Your task to perform on an android device: set default search engine in the chrome app Image 0: 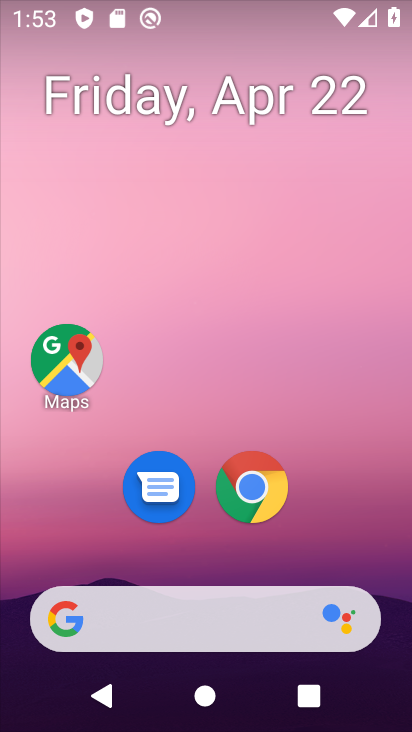
Step 0: drag from (201, 597) to (285, 159)
Your task to perform on an android device: set default search engine in the chrome app Image 1: 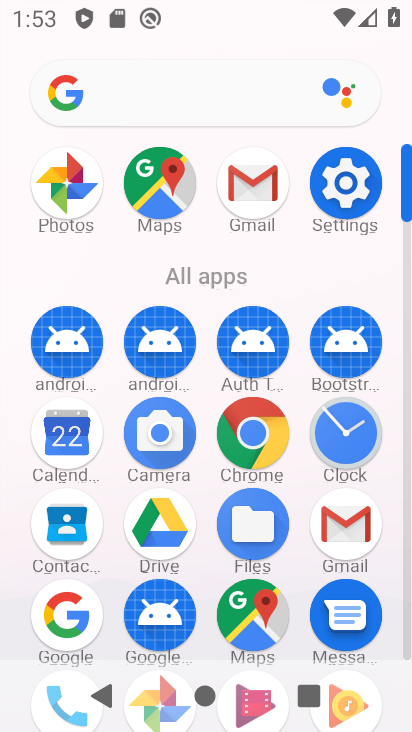
Step 1: click (238, 448)
Your task to perform on an android device: set default search engine in the chrome app Image 2: 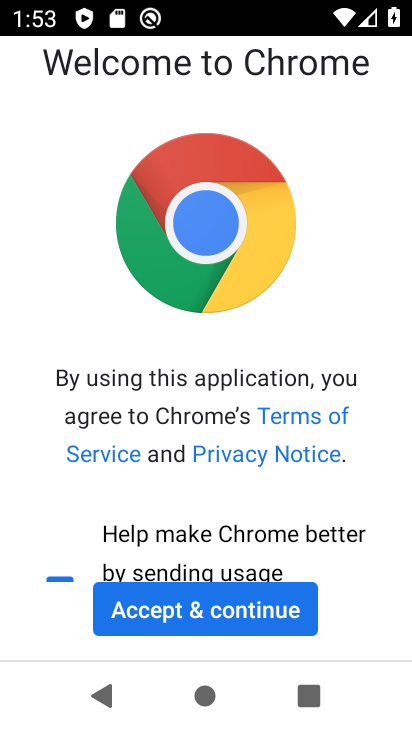
Step 2: click (204, 596)
Your task to perform on an android device: set default search engine in the chrome app Image 3: 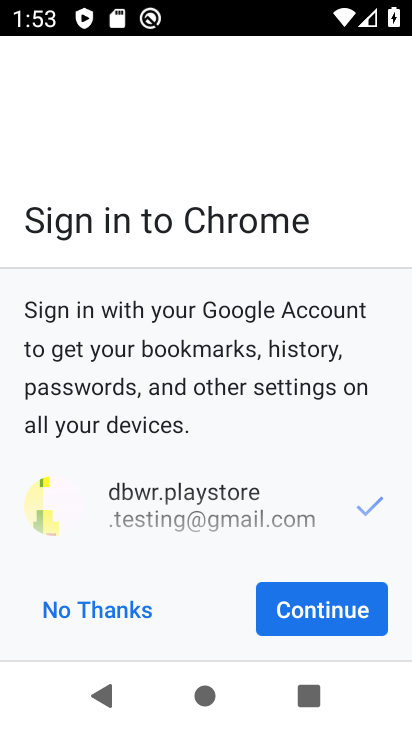
Step 3: click (299, 614)
Your task to perform on an android device: set default search engine in the chrome app Image 4: 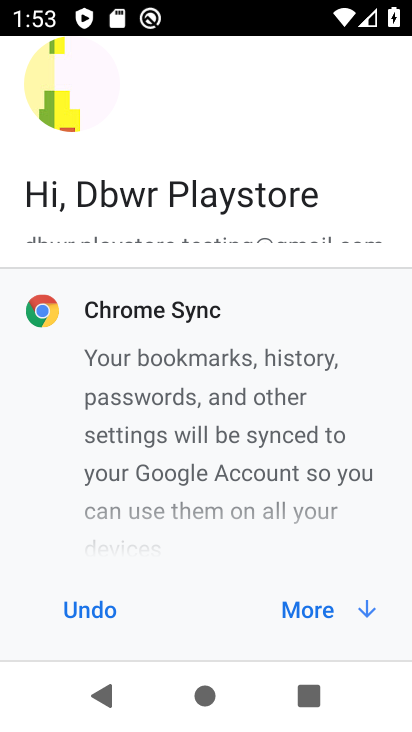
Step 4: click (299, 614)
Your task to perform on an android device: set default search engine in the chrome app Image 5: 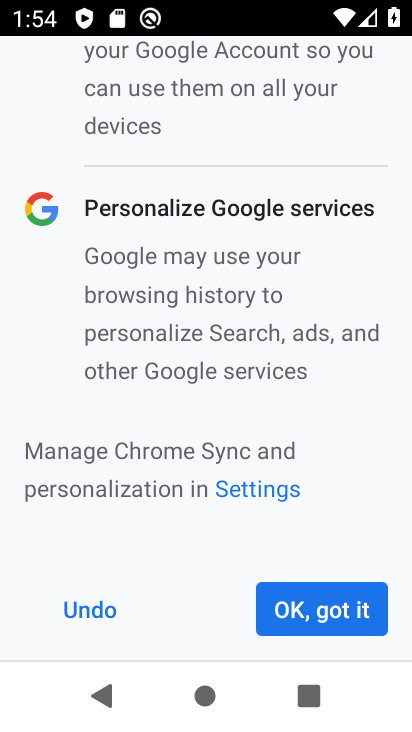
Step 5: click (303, 612)
Your task to perform on an android device: set default search engine in the chrome app Image 6: 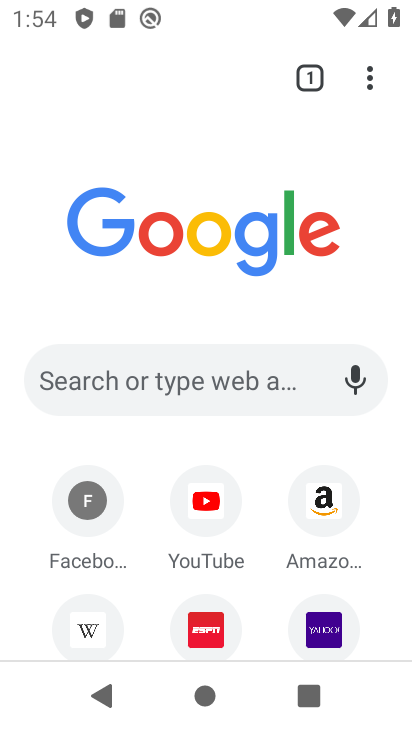
Step 6: drag from (367, 87) to (103, 554)
Your task to perform on an android device: set default search engine in the chrome app Image 7: 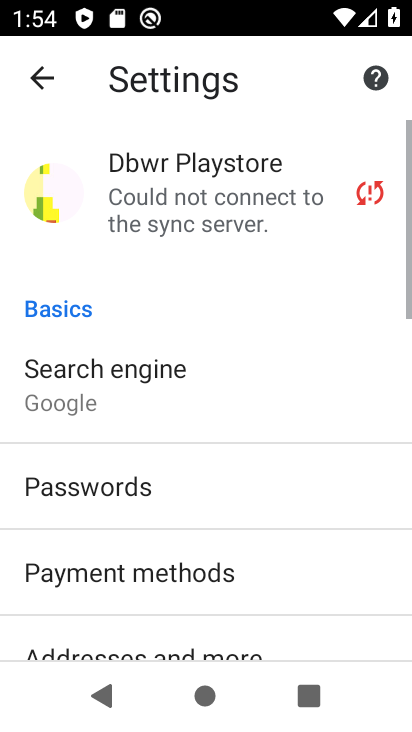
Step 7: click (62, 412)
Your task to perform on an android device: set default search engine in the chrome app Image 8: 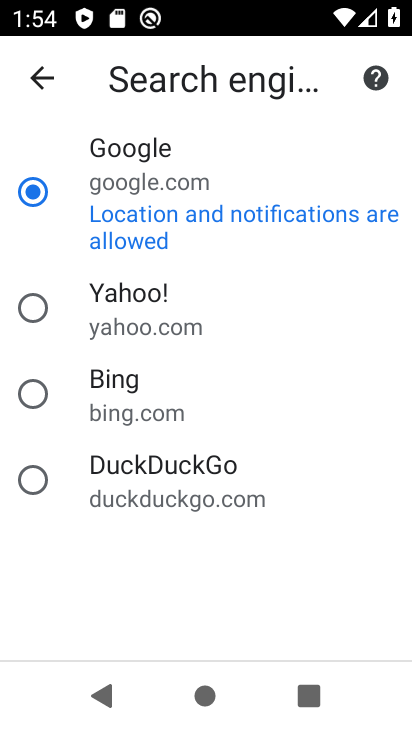
Step 8: click (36, 300)
Your task to perform on an android device: set default search engine in the chrome app Image 9: 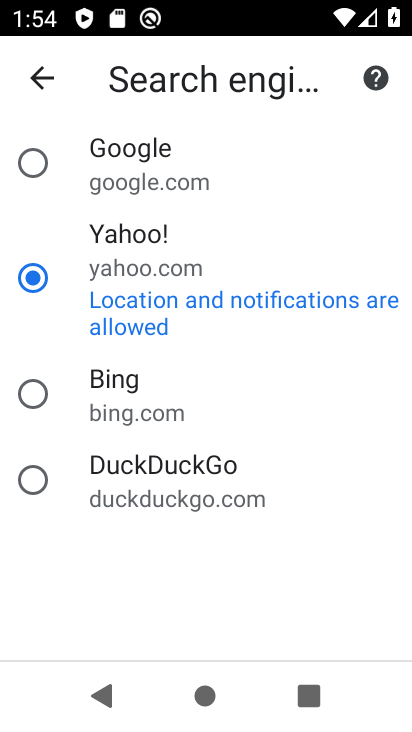
Step 9: task complete